Your task to perform on an android device: check out phone information Image 0: 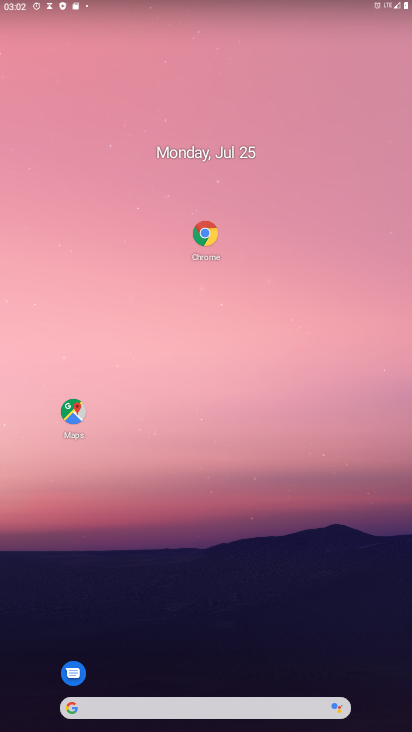
Step 0: drag from (257, 694) to (330, 68)
Your task to perform on an android device: check out phone information Image 1: 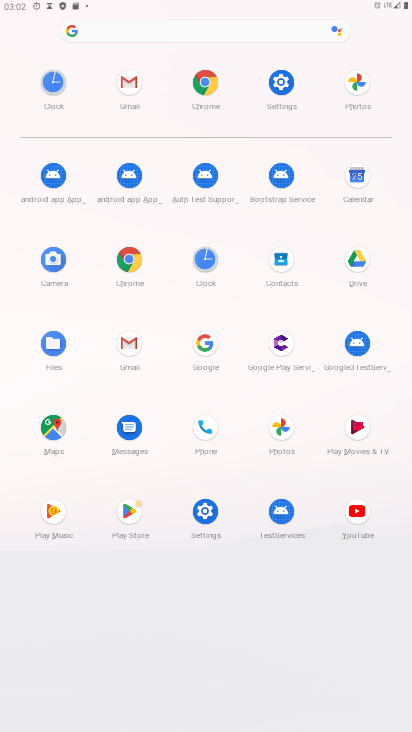
Step 1: click (276, 75)
Your task to perform on an android device: check out phone information Image 2: 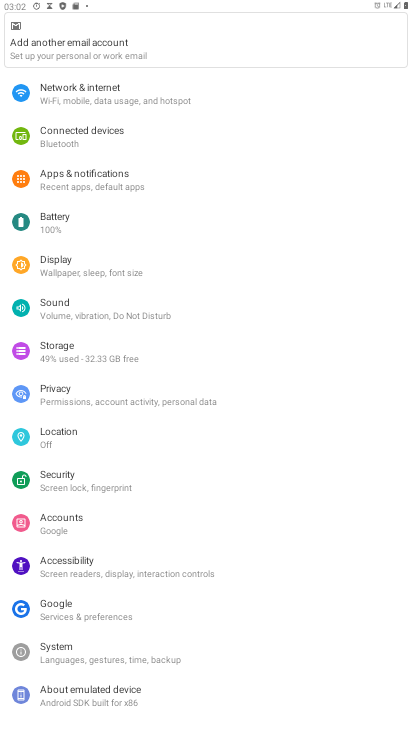
Step 2: click (156, 702)
Your task to perform on an android device: check out phone information Image 3: 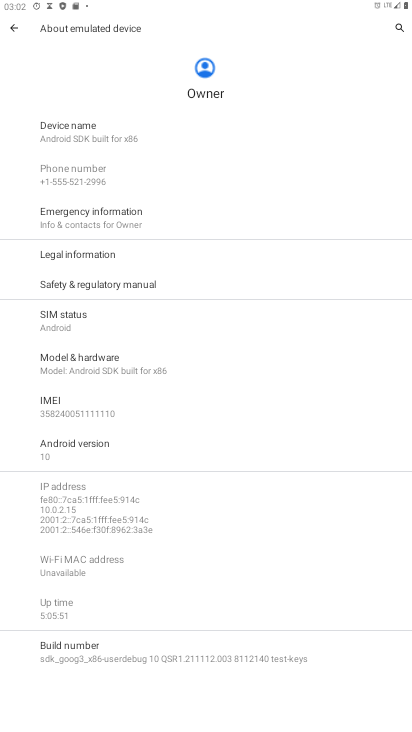
Step 3: task complete